Your task to perform on an android device: change the clock display to analog Image 0: 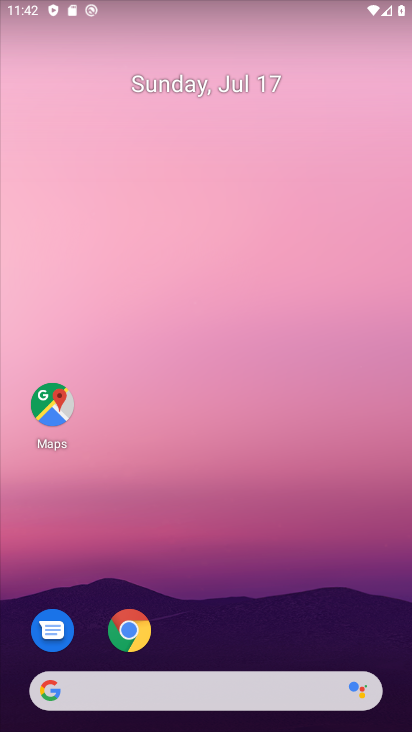
Step 0: drag from (258, 668) to (181, 97)
Your task to perform on an android device: change the clock display to analog Image 1: 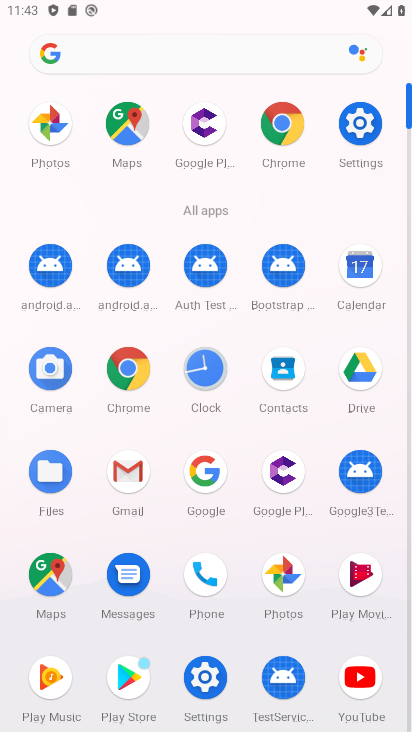
Step 1: click (193, 370)
Your task to perform on an android device: change the clock display to analog Image 2: 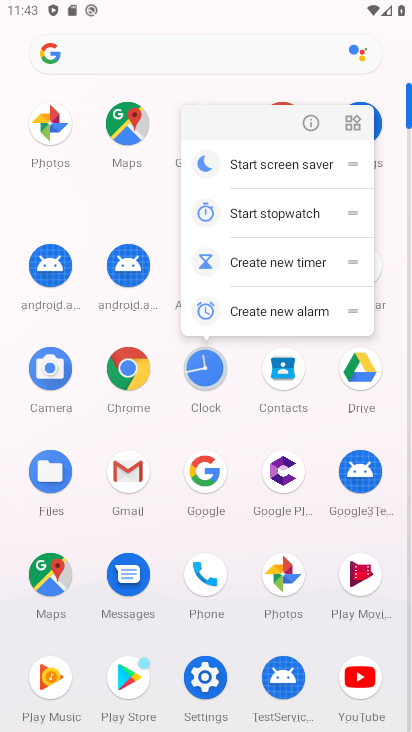
Step 2: click (193, 370)
Your task to perform on an android device: change the clock display to analog Image 3: 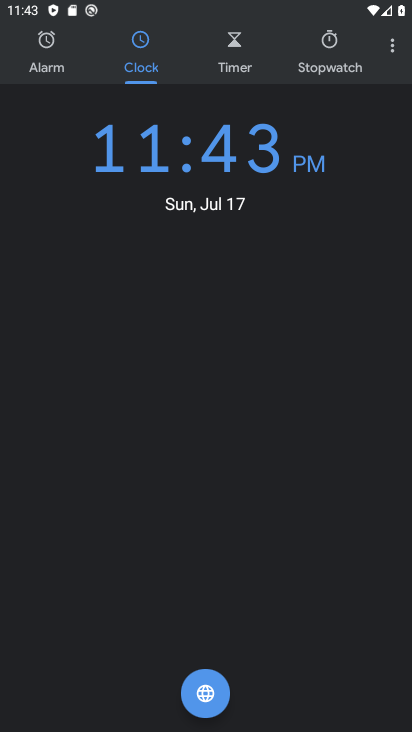
Step 3: click (395, 48)
Your task to perform on an android device: change the clock display to analog Image 4: 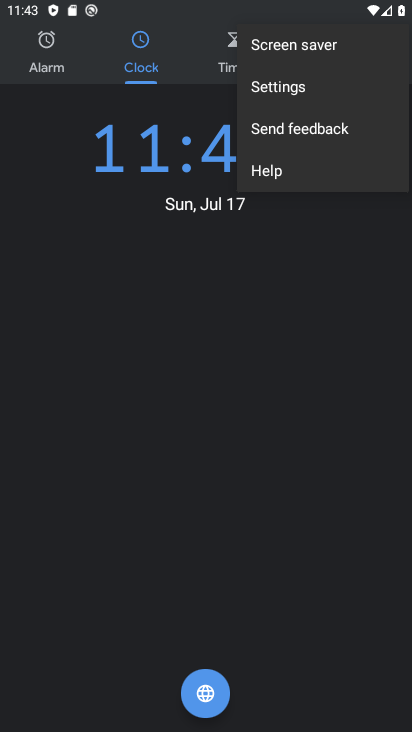
Step 4: click (289, 83)
Your task to perform on an android device: change the clock display to analog Image 5: 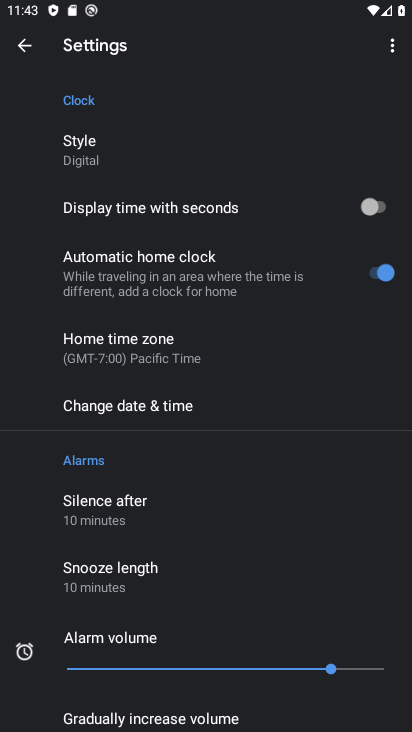
Step 5: click (90, 148)
Your task to perform on an android device: change the clock display to analog Image 6: 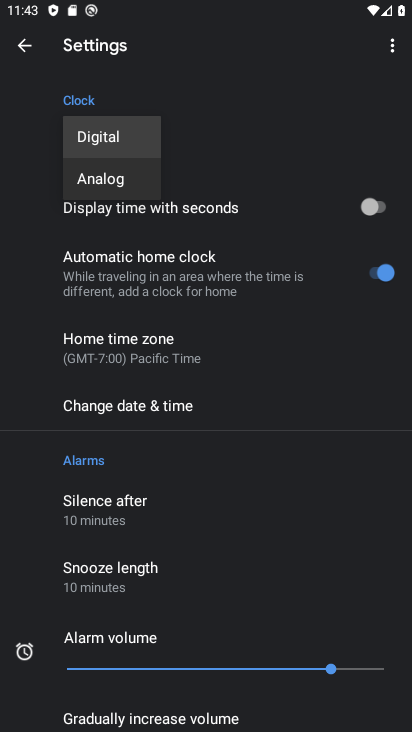
Step 6: click (94, 179)
Your task to perform on an android device: change the clock display to analog Image 7: 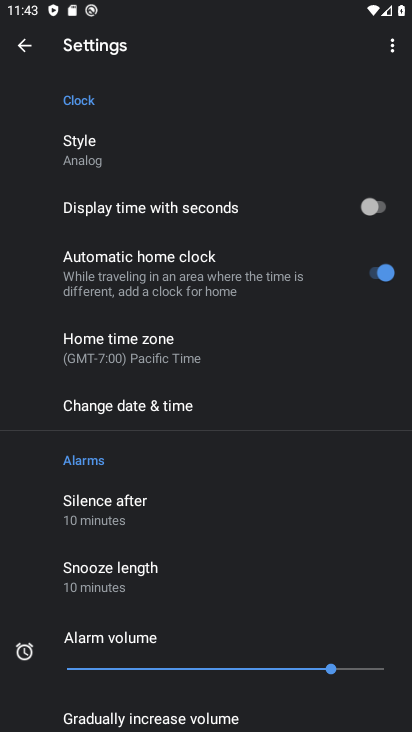
Step 7: task complete